Your task to perform on an android device: Turn on the flashlight Image 0: 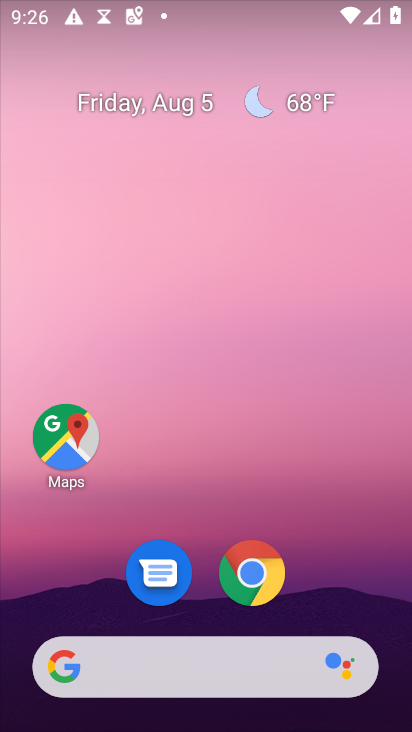
Step 0: drag from (220, 668) to (253, 206)
Your task to perform on an android device: Turn on the flashlight Image 1: 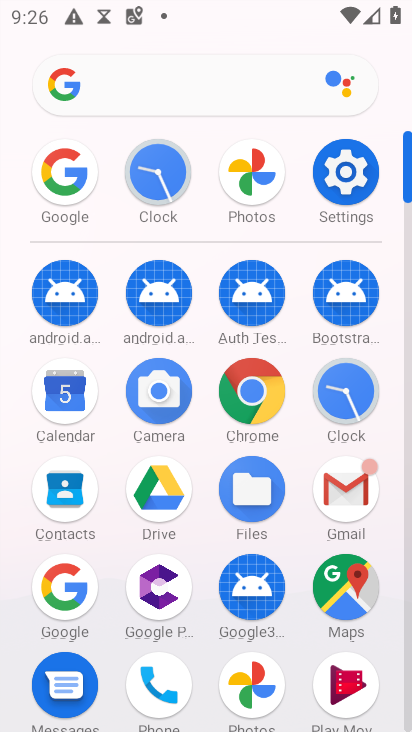
Step 1: click (345, 174)
Your task to perform on an android device: Turn on the flashlight Image 2: 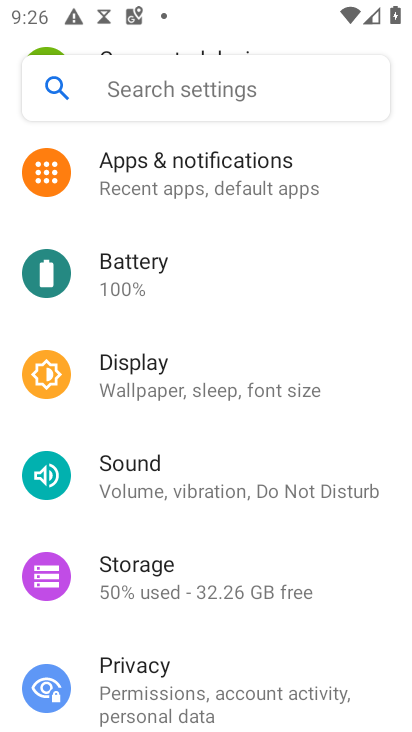
Step 2: drag from (219, 333) to (234, 533)
Your task to perform on an android device: Turn on the flashlight Image 3: 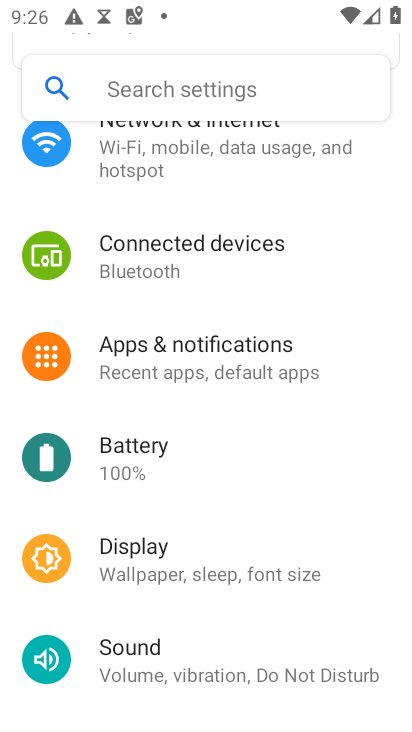
Step 3: drag from (254, 209) to (243, 492)
Your task to perform on an android device: Turn on the flashlight Image 4: 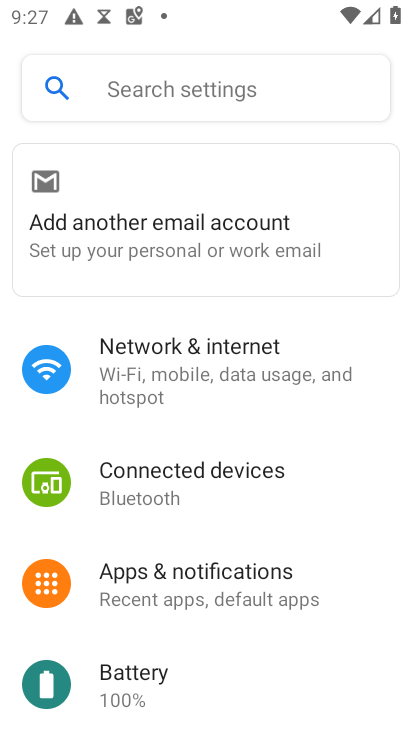
Step 4: drag from (223, 591) to (281, 407)
Your task to perform on an android device: Turn on the flashlight Image 5: 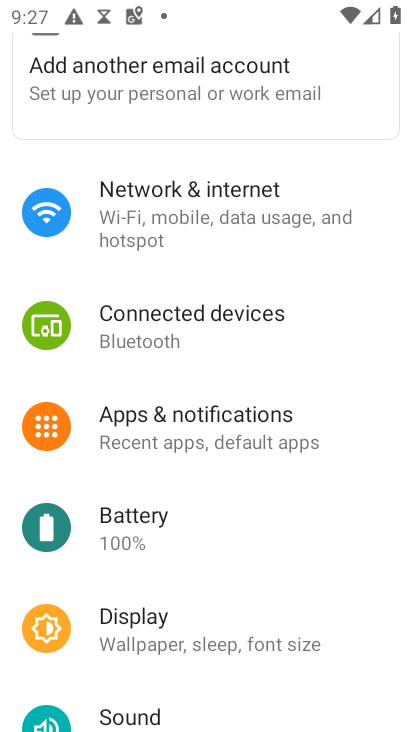
Step 5: drag from (172, 575) to (242, 419)
Your task to perform on an android device: Turn on the flashlight Image 6: 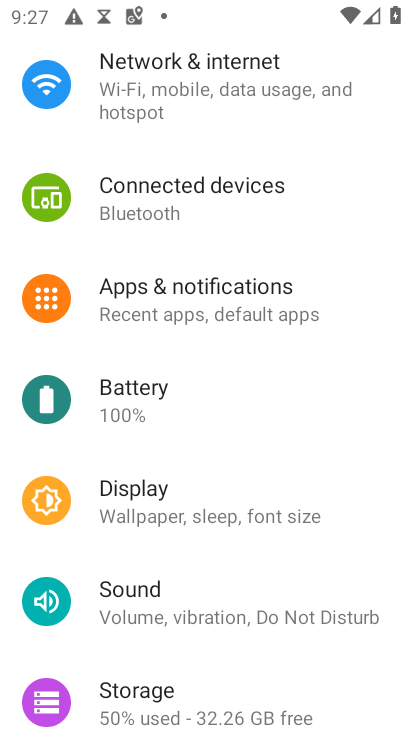
Step 6: click (315, 500)
Your task to perform on an android device: Turn on the flashlight Image 7: 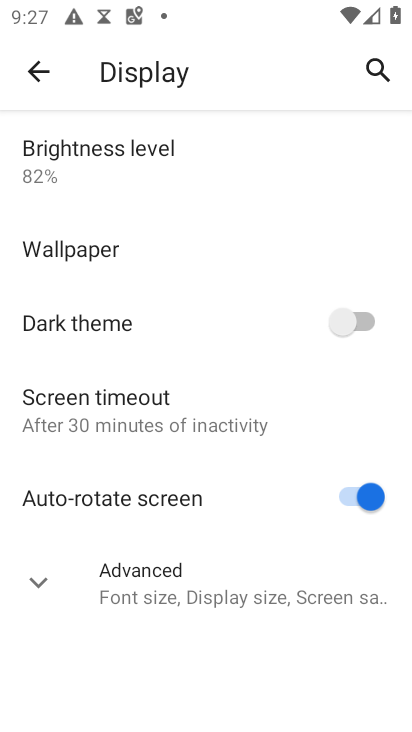
Step 7: click (187, 427)
Your task to perform on an android device: Turn on the flashlight Image 8: 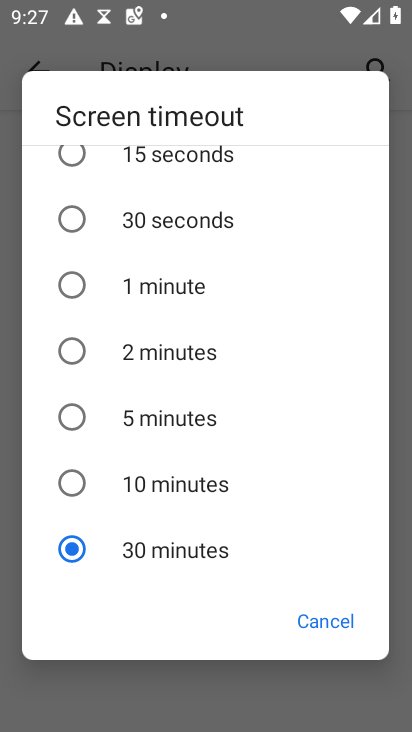
Step 8: press back button
Your task to perform on an android device: Turn on the flashlight Image 9: 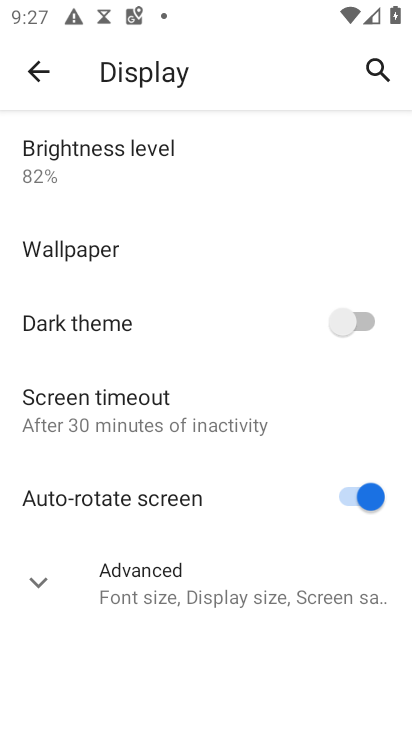
Step 9: drag from (124, 320) to (203, 463)
Your task to perform on an android device: Turn on the flashlight Image 10: 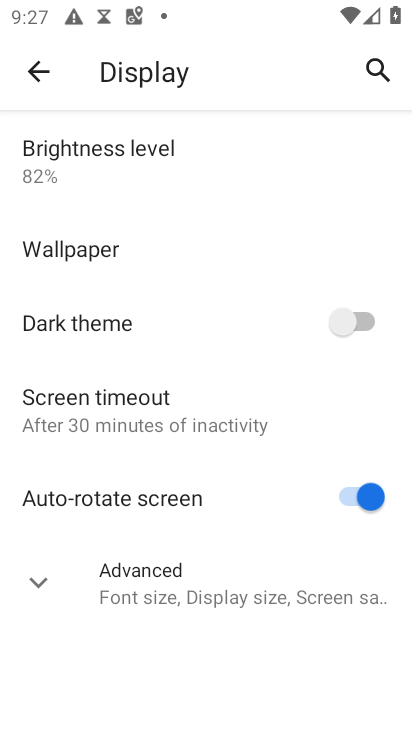
Step 10: click (272, 588)
Your task to perform on an android device: Turn on the flashlight Image 11: 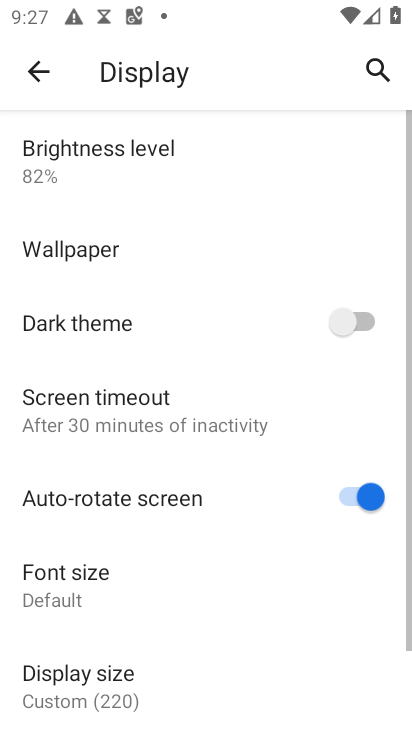
Step 11: task complete